Your task to perform on an android device: What's on my calendar today? Image 0: 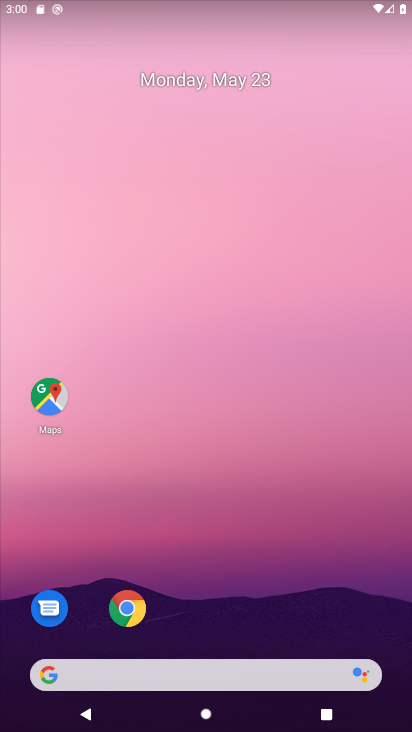
Step 0: drag from (250, 621) to (231, 44)
Your task to perform on an android device: What's on my calendar today? Image 1: 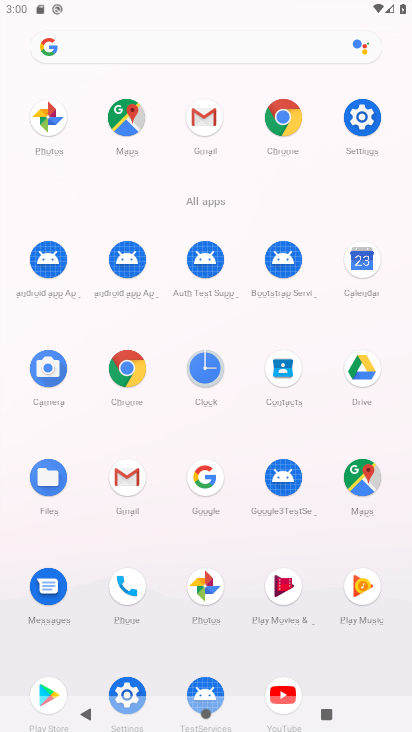
Step 1: click (359, 265)
Your task to perform on an android device: What's on my calendar today? Image 2: 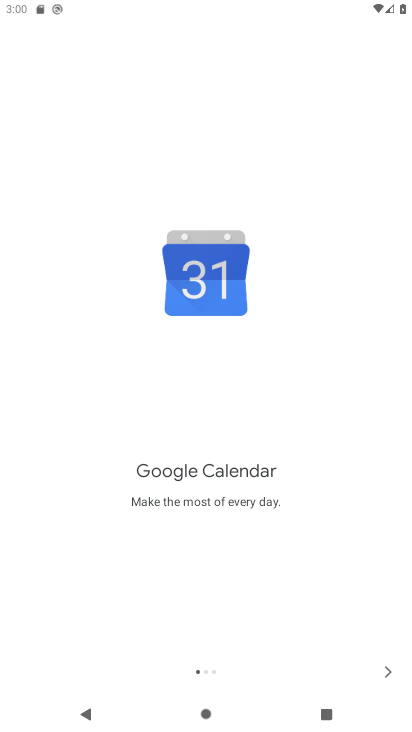
Step 2: click (383, 669)
Your task to perform on an android device: What's on my calendar today? Image 3: 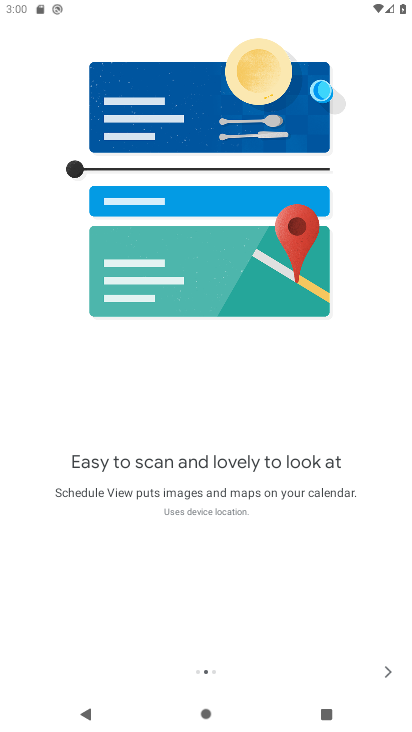
Step 3: click (383, 669)
Your task to perform on an android device: What's on my calendar today? Image 4: 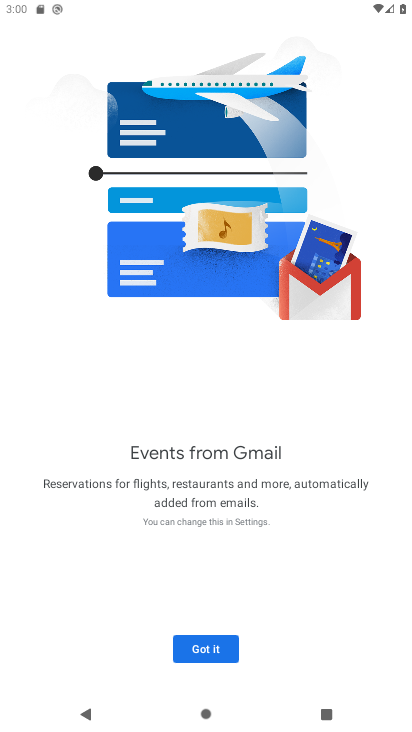
Step 4: click (210, 650)
Your task to perform on an android device: What's on my calendar today? Image 5: 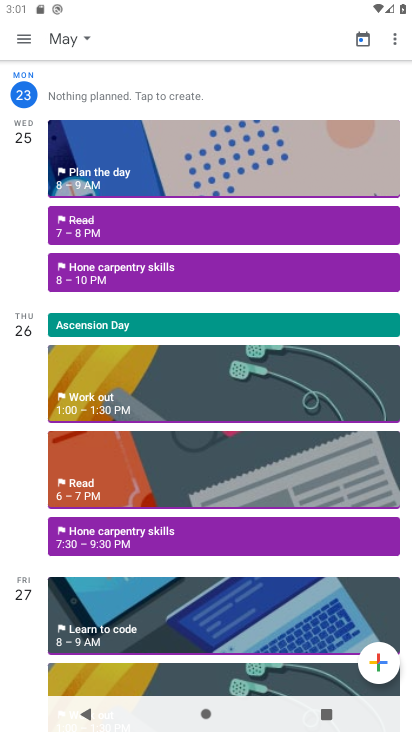
Step 5: task complete